Your task to perform on an android device: See recent photos Image 0: 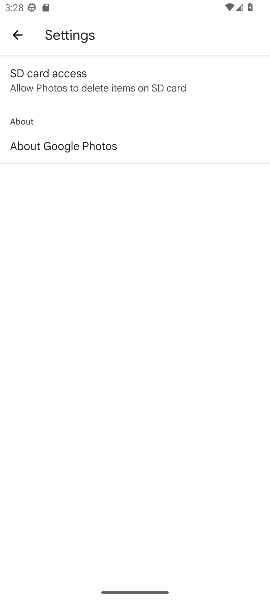
Step 0: press home button
Your task to perform on an android device: See recent photos Image 1: 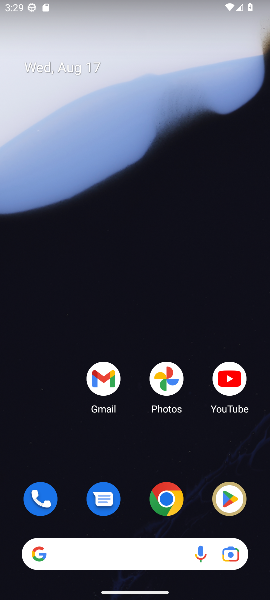
Step 1: drag from (134, 460) to (177, 0)
Your task to perform on an android device: See recent photos Image 2: 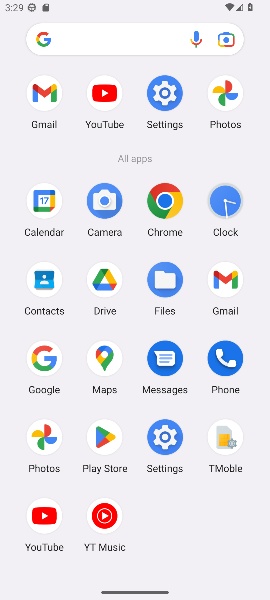
Step 2: click (38, 434)
Your task to perform on an android device: See recent photos Image 3: 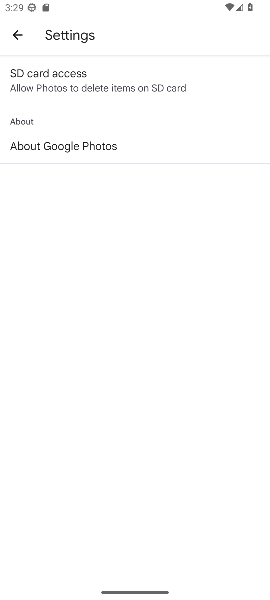
Step 3: click (18, 31)
Your task to perform on an android device: See recent photos Image 4: 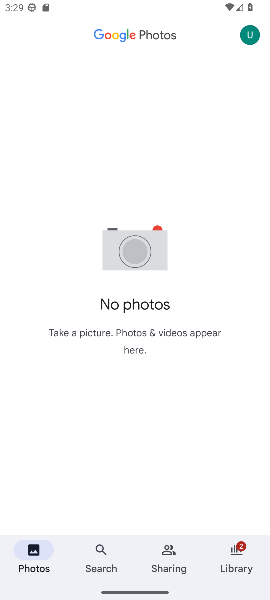
Step 4: task complete